Your task to perform on an android device: Open network settings Image 0: 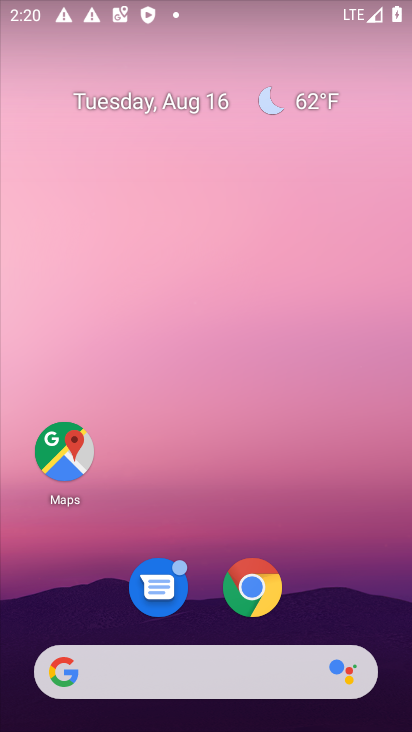
Step 0: drag from (105, 570) to (185, 38)
Your task to perform on an android device: Open network settings Image 1: 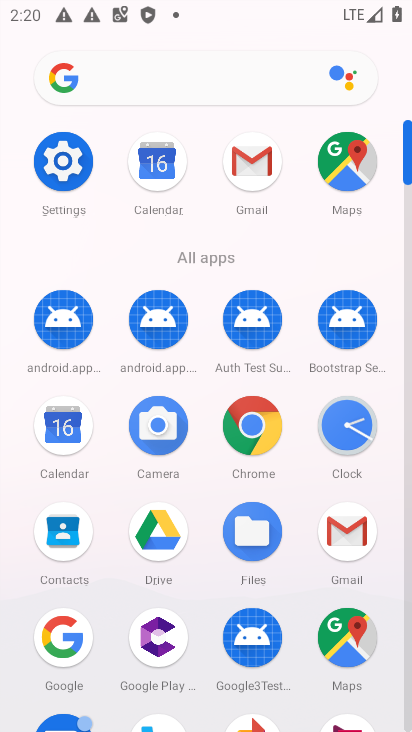
Step 1: click (62, 163)
Your task to perform on an android device: Open network settings Image 2: 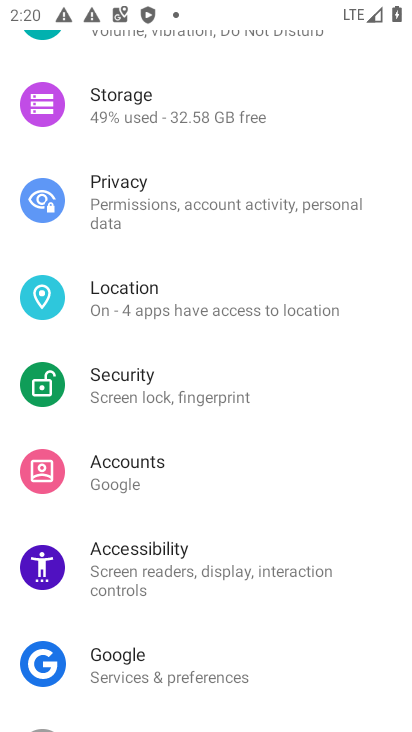
Step 2: drag from (293, 156) to (247, 597)
Your task to perform on an android device: Open network settings Image 3: 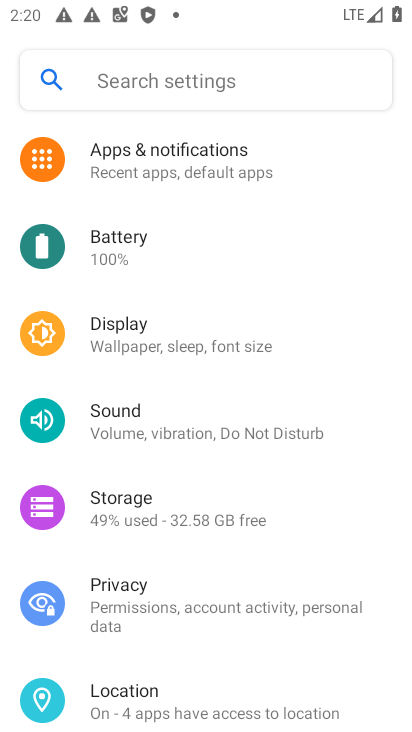
Step 3: drag from (271, 260) to (178, 731)
Your task to perform on an android device: Open network settings Image 4: 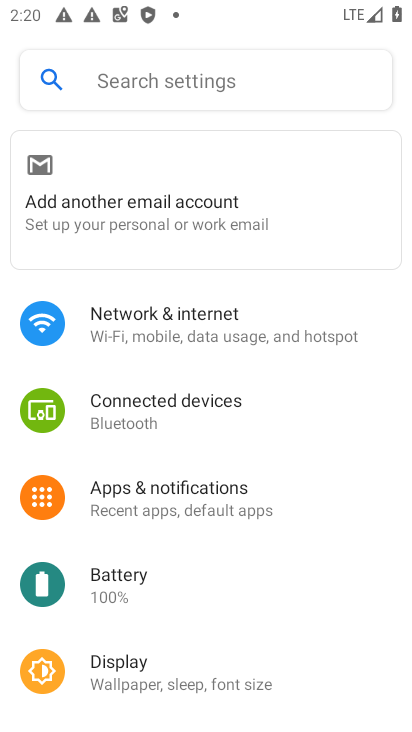
Step 4: click (173, 322)
Your task to perform on an android device: Open network settings Image 5: 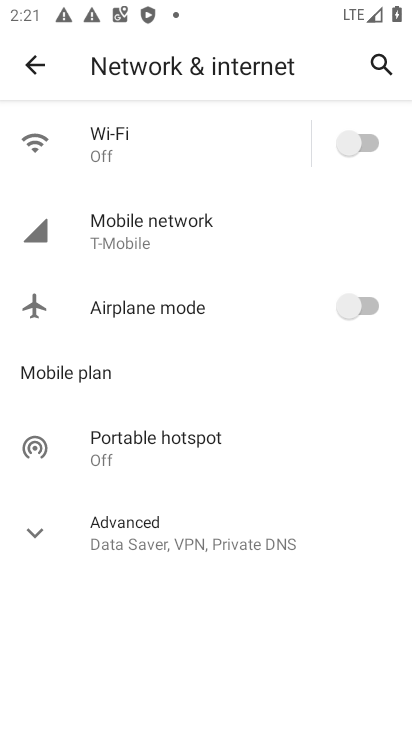
Step 5: task complete